Your task to perform on an android device: set an alarm Image 0: 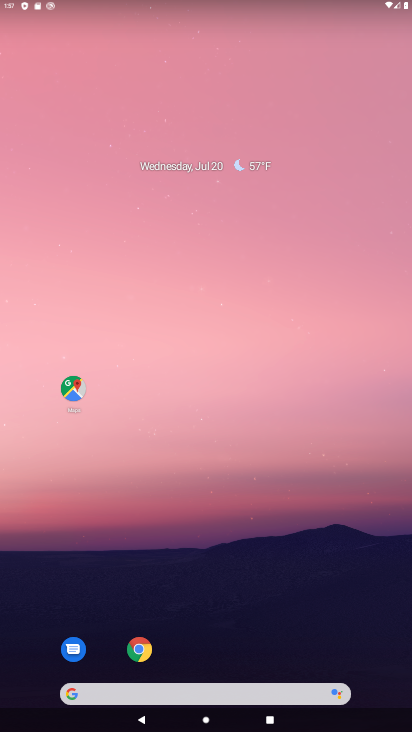
Step 0: drag from (201, 653) to (304, 23)
Your task to perform on an android device: set an alarm Image 1: 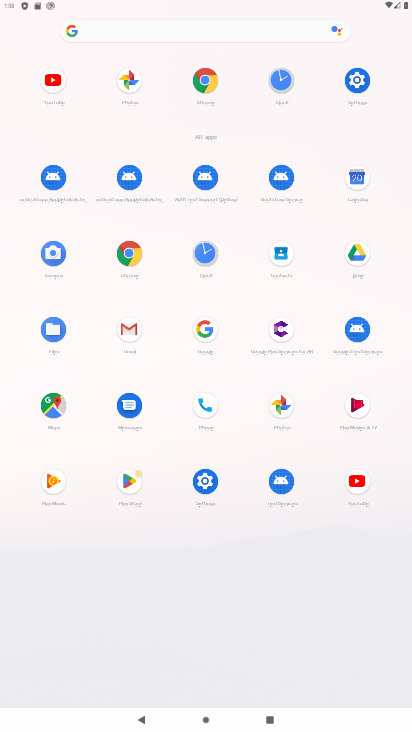
Step 1: click (202, 320)
Your task to perform on an android device: set an alarm Image 2: 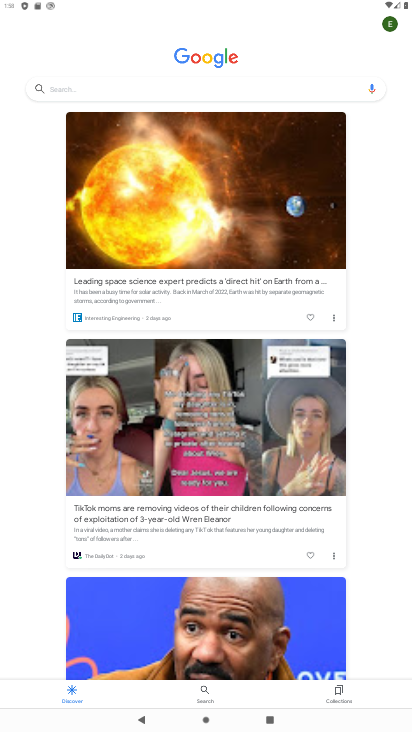
Step 2: press home button
Your task to perform on an android device: set an alarm Image 3: 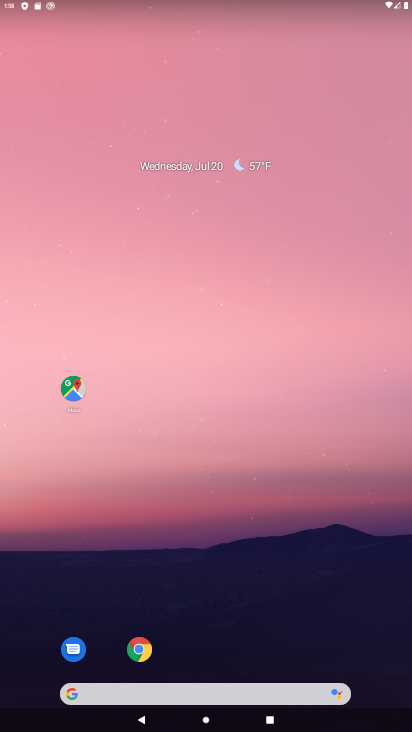
Step 3: drag from (217, 586) to (227, 319)
Your task to perform on an android device: set an alarm Image 4: 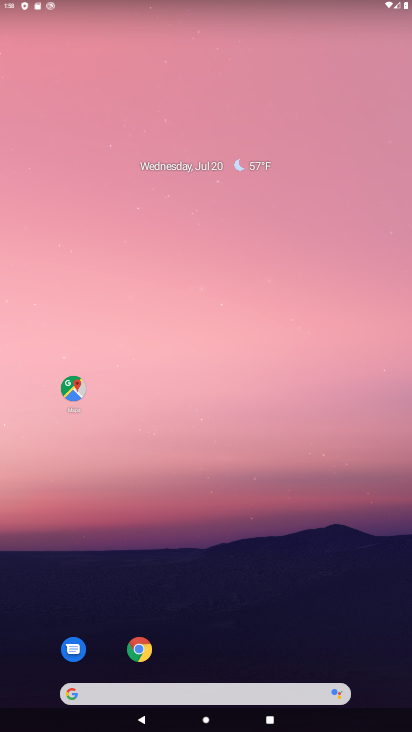
Step 4: drag from (196, 633) to (206, 275)
Your task to perform on an android device: set an alarm Image 5: 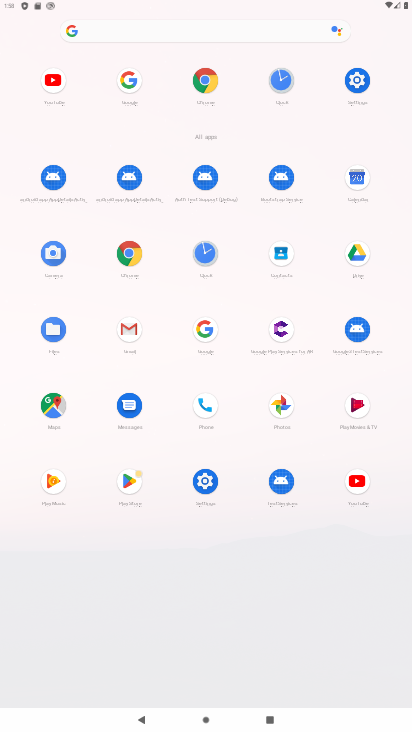
Step 5: click (278, 79)
Your task to perform on an android device: set an alarm Image 6: 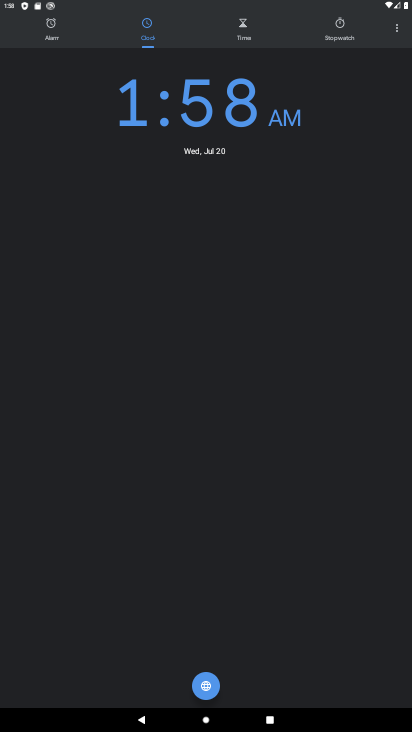
Step 6: click (47, 39)
Your task to perform on an android device: set an alarm Image 7: 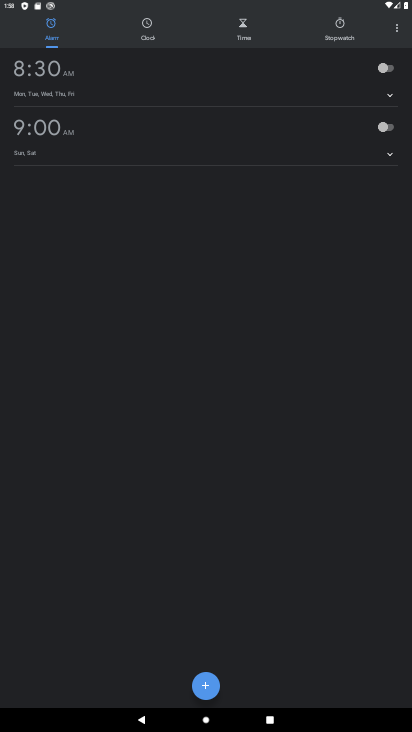
Step 7: click (394, 74)
Your task to perform on an android device: set an alarm Image 8: 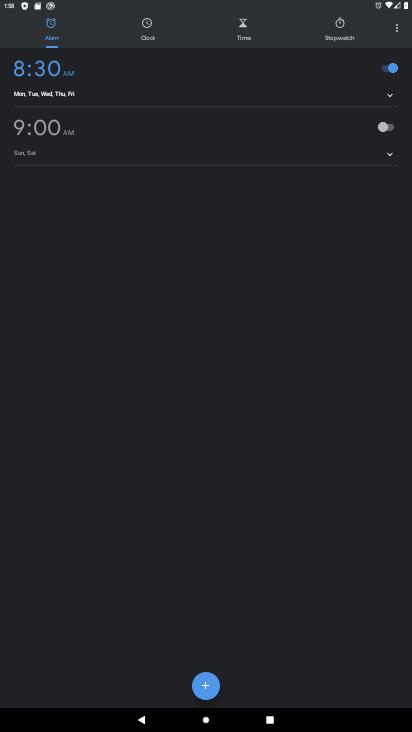
Step 8: task complete